Your task to perform on an android device: check out phone information Image 0: 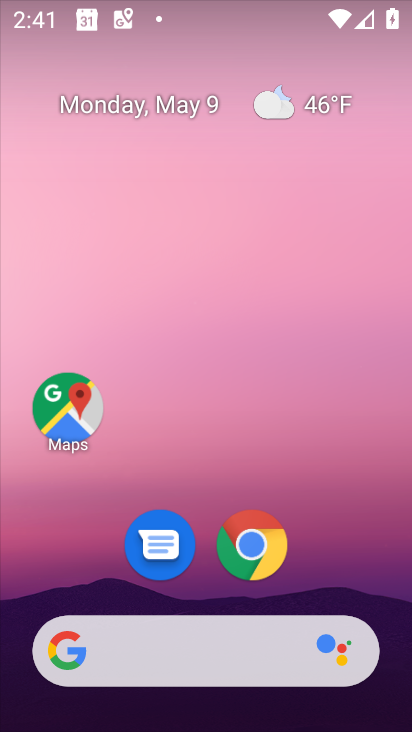
Step 0: drag from (222, 545) to (222, 248)
Your task to perform on an android device: check out phone information Image 1: 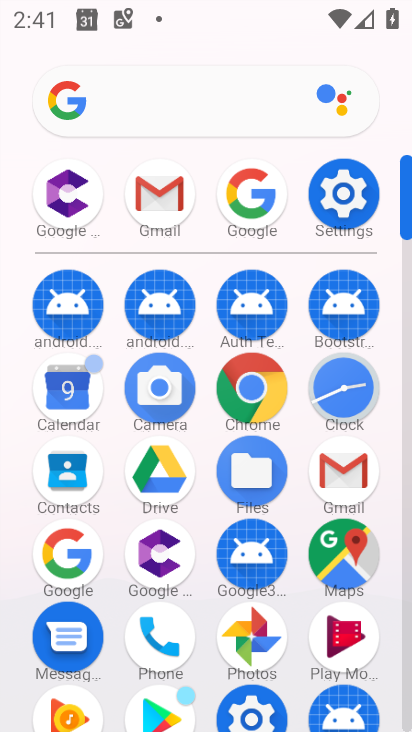
Step 1: click (344, 196)
Your task to perform on an android device: check out phone information Image 2: 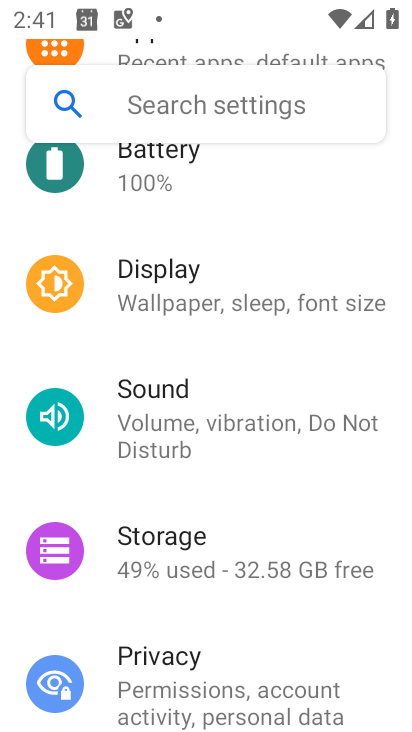
Step 2: drag from (221, 621) to (245, 279)
Your task to perform on an android device: check out phone information Image 3: 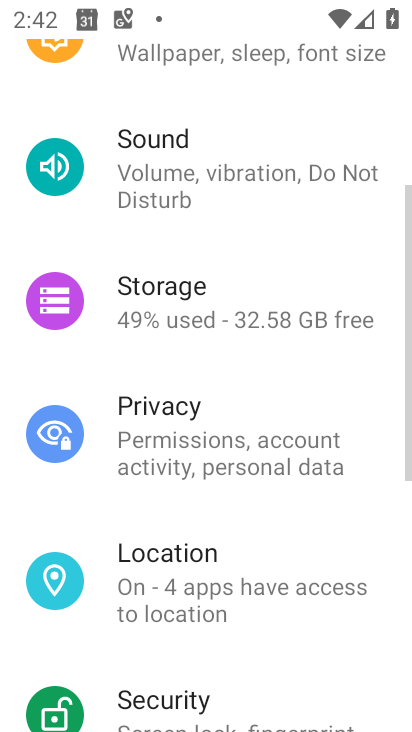
Step 3: drag from (210, 602) to (227, 339)
Your task to perform on an android device: check out phone information Image 4: 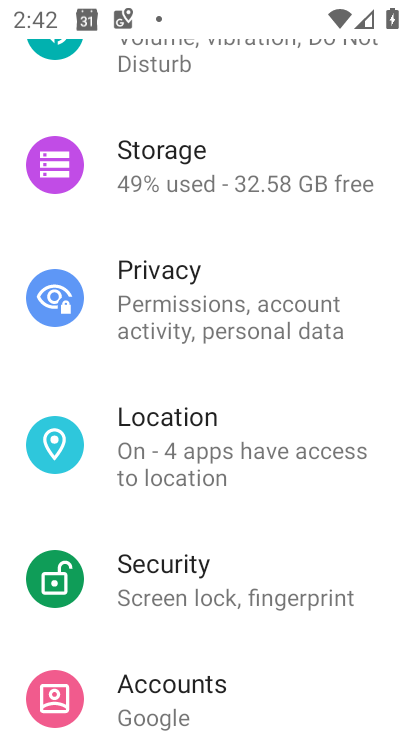
Step 4: drag from (259, 579) to (297, 275)
Your task to perform on an android device: check out phone information Image 5: 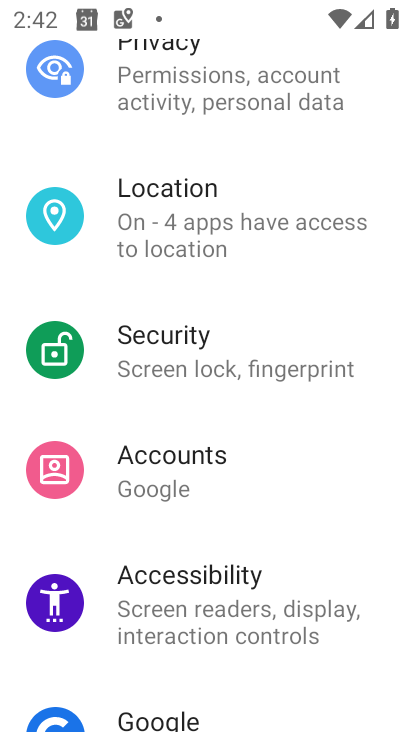
Step 5: drag from (291, 619) to (298, 312)
Your task to perform on an android device: check out phone information Image 6: 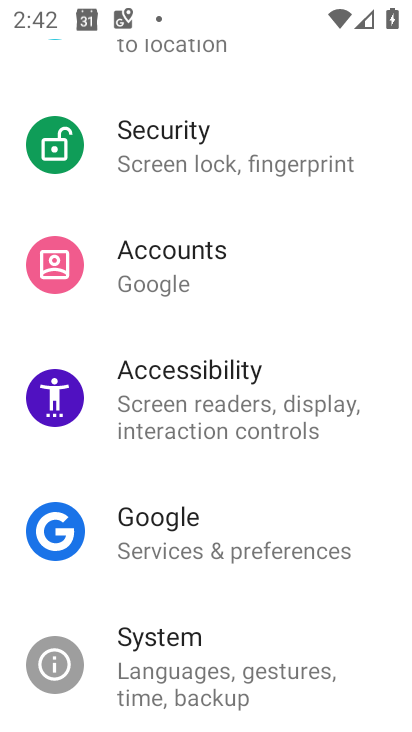
Step 6: drag from (283, 612) to (279, 291)
Your task to perform on an android device: check out phone information Image 7: 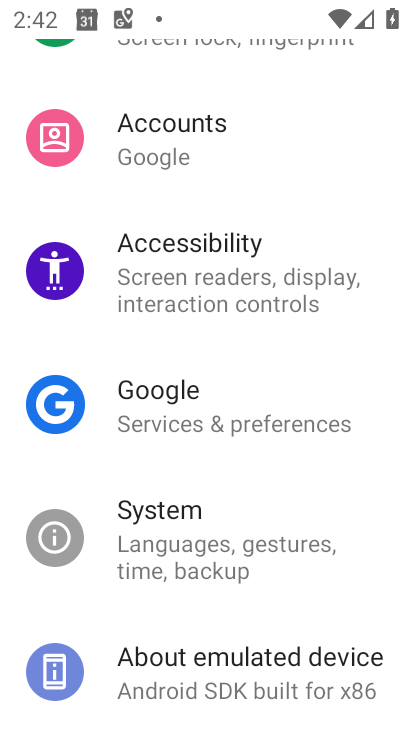
Step 7: click (209, 660)
Your task to perform on an android device: check out phone information Image 8: 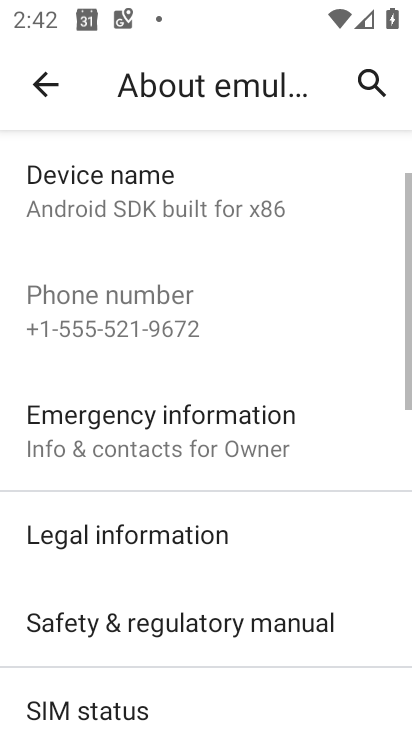
Step 8: drag from (237, 549) to (235, 196)
Your task to perform on an android device: check out phone information Image 9: 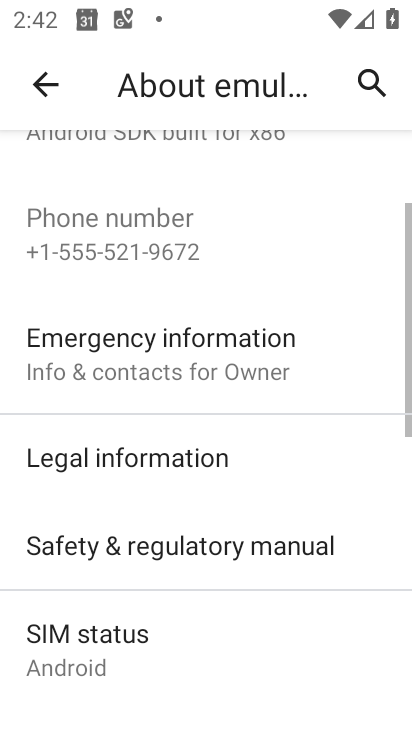
Step 9: drag from (294, 683) to (323, 416)
Your task to perform on an android device: check out phone information Image 10: 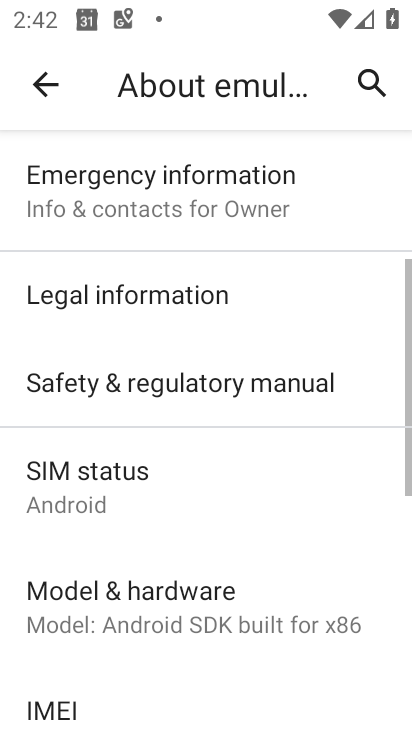
Step 10: drag from (268, 666) to (280, 331)
Your task to perform on an android device: check out phone information Image 11: 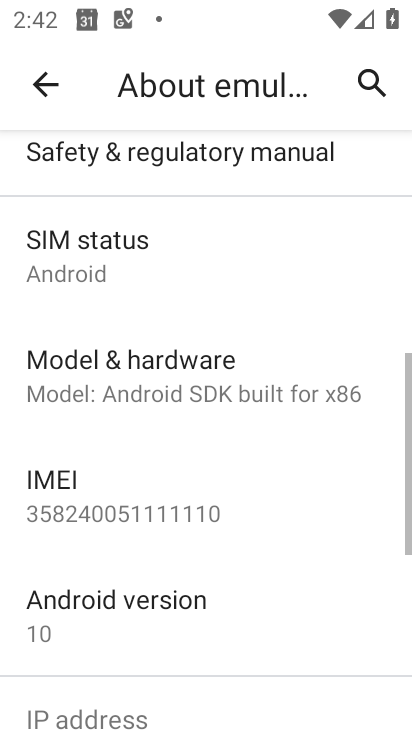
Step 11: drag from (247, 662) to (259, 249)
Your task to perform on an android device: check out phone information Image 12: 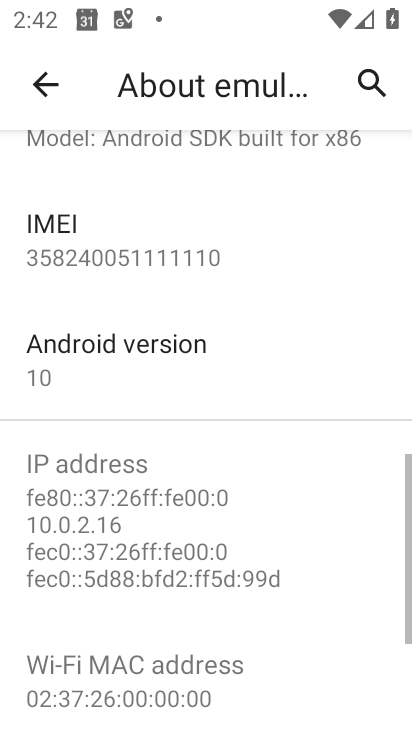
Step 12: drag from (238, 594) to (226, 249)
Your task to perform on an android device: check out phone information Image 13: 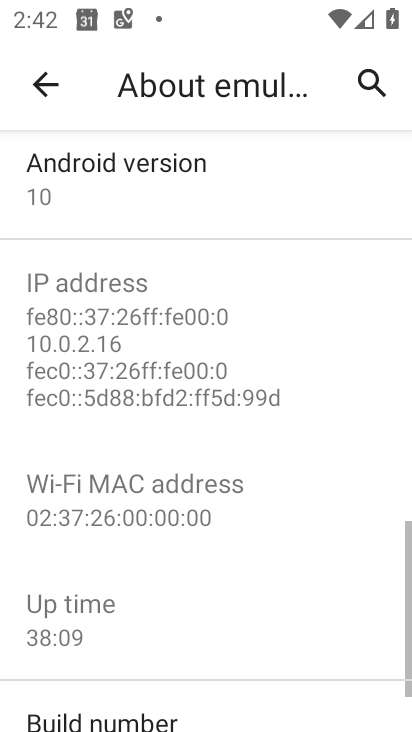
Step 13: click (210, 603)
Your task to perform on an android device: check out phone information Image 14: 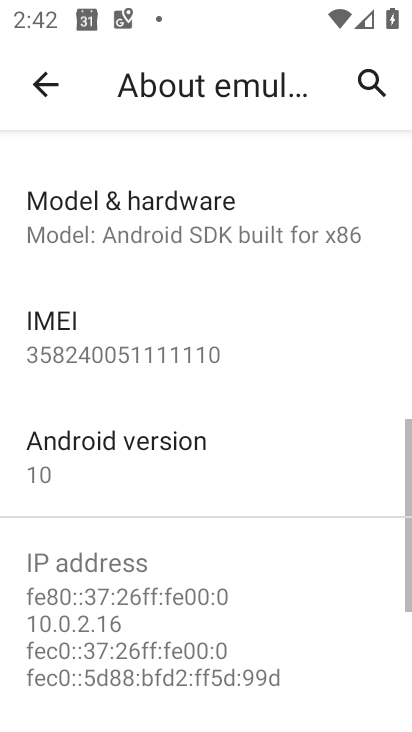
Step 14: task complete